Your task to perform on an android device: Is it going to rain this weekend? Image 0: 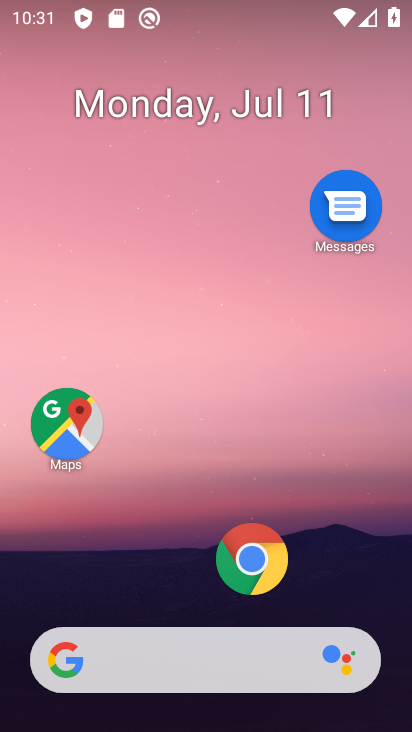
Step 0: click (258, 667)
Your task to perform on an android device: Is it going to rain this weekend? Image 1: 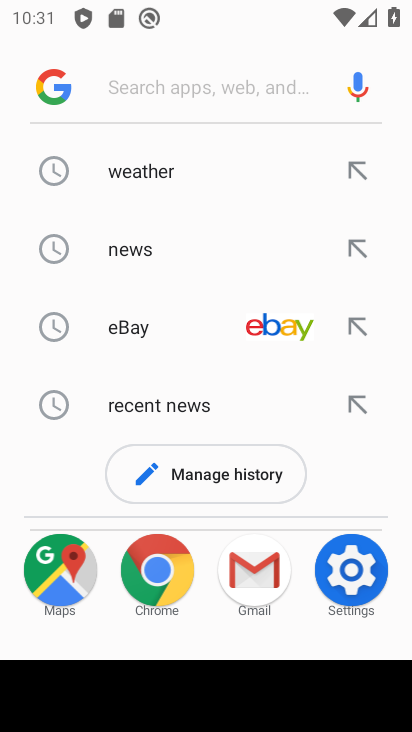
Step 1: click (165, 171)
Your task to perform on an android device: Is it going to rain this weekend? Image 2: 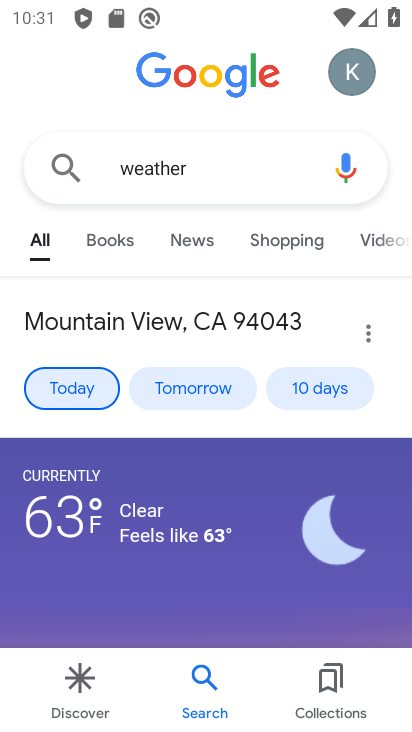
Step 2: click (335, 394)
Your task to perform on an android device: Is it going to rain this weekend? Image 3: 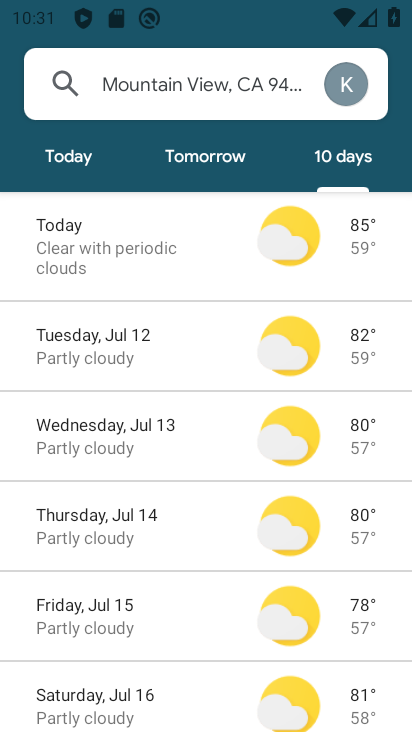
Step 3: drag from (185, 614) to (176, 448)
Your task to perform on an android device: Is it going to rain this weekend? Image 4: 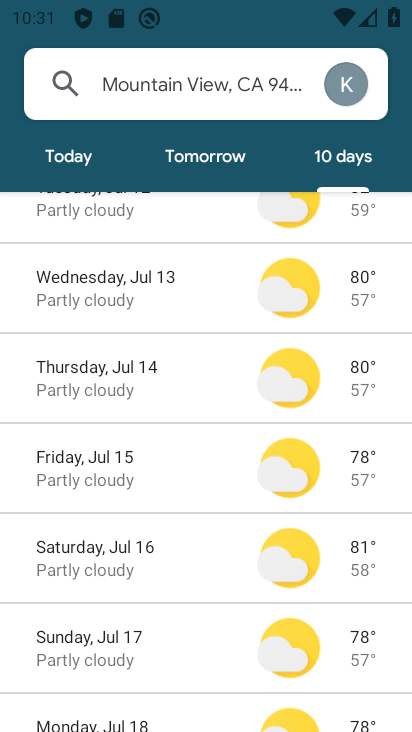
Step 4: click (166, 553)
Your task to perform on an android device: Is it going to rain this weekend? Image 5: 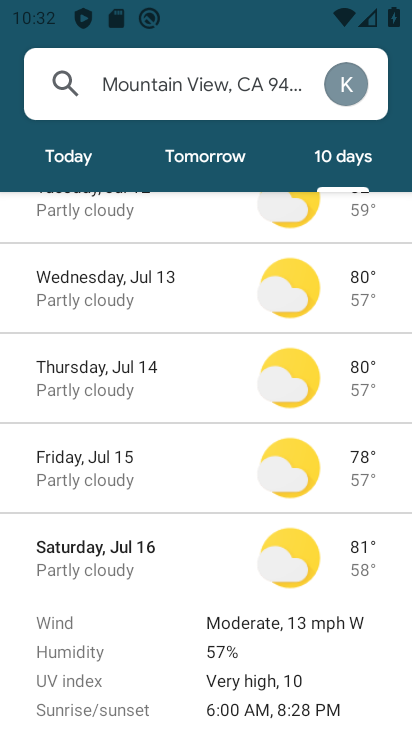
Step 5: task complete